Your task to perform on an android device: turn on location history Image 0: 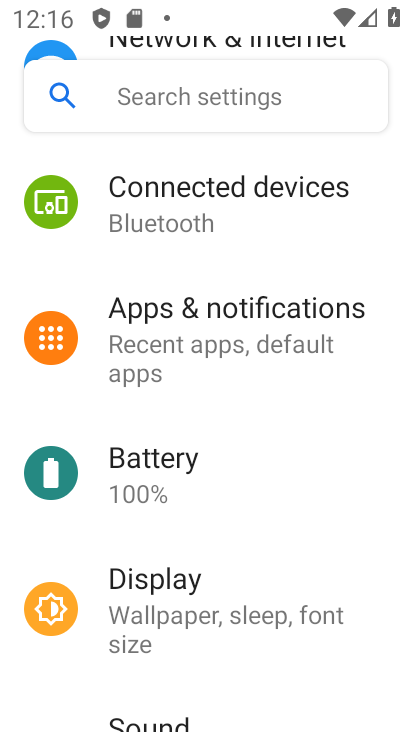
Step 0: drag from (357, 557) to (339, 380)
Your task to perform on an android device: turn on location history Image 1: 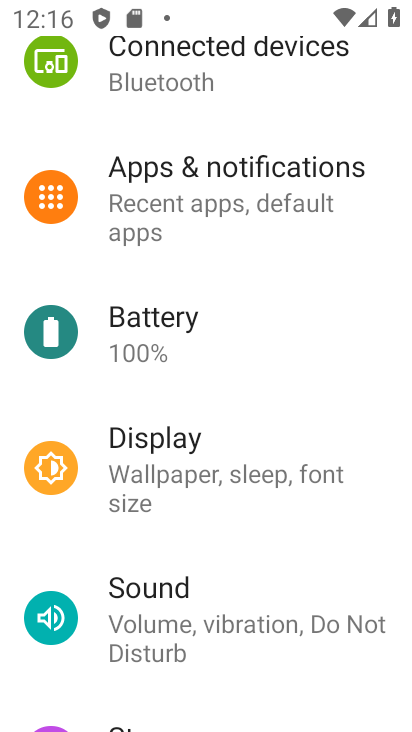
Step 1: drag from (321, 626) to (321, 484)
Your task to perform on an android device: turn on location history Image 2: 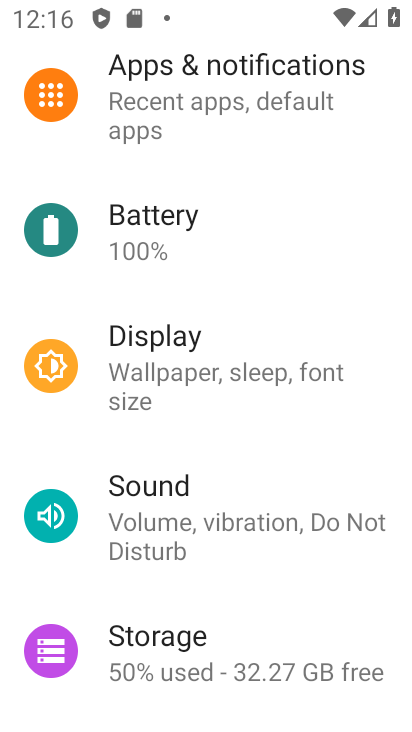
Step 2: drag from (291, 633) to (293, 427)
Your task to perform on an android device: turn on location history Image 3: 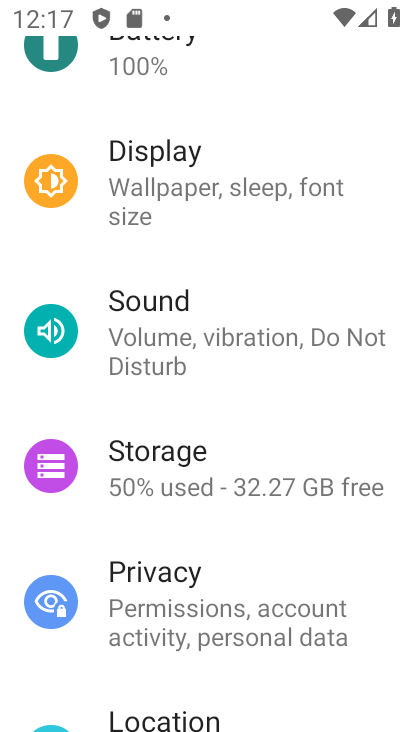
Step 3: drag from (318, 690) to (304, 455)
Your task to perform on an android device: turn on location history Image 4: 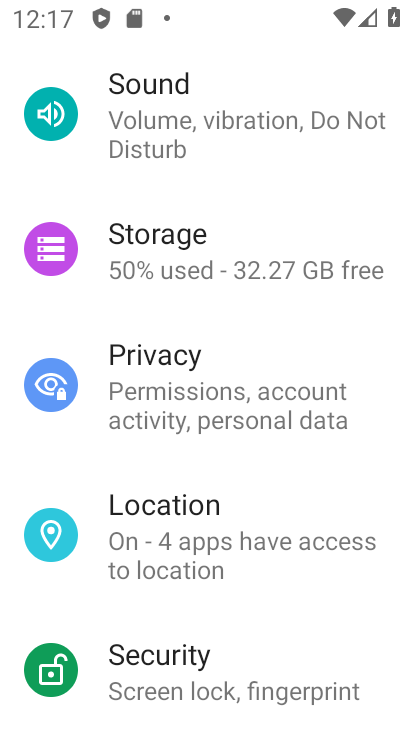
Step 4: drag from (292, 661) to (283, 547)
Your task to perform on an android device: turn on location history Image 5: 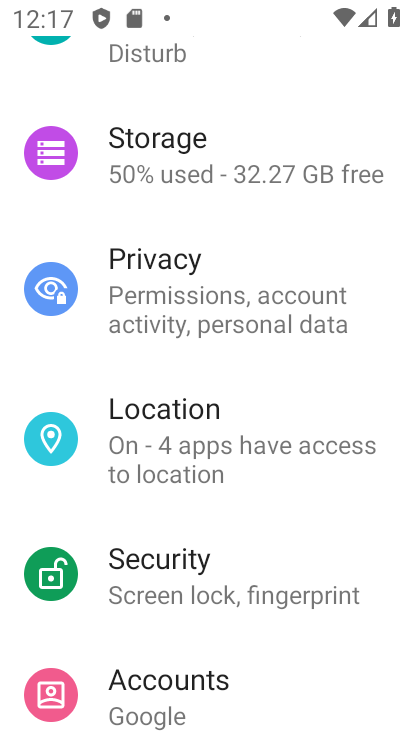
Step 5: click (216, 453)
Your task to perform on an android device: turn on location history Image 6: 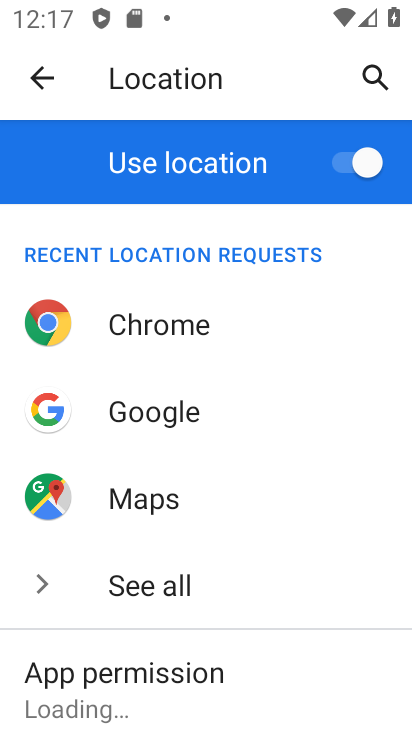
Step 6: drag from (299, 689) to (298, 500)
Your task to perform on an android device: turn on location history Image 7: 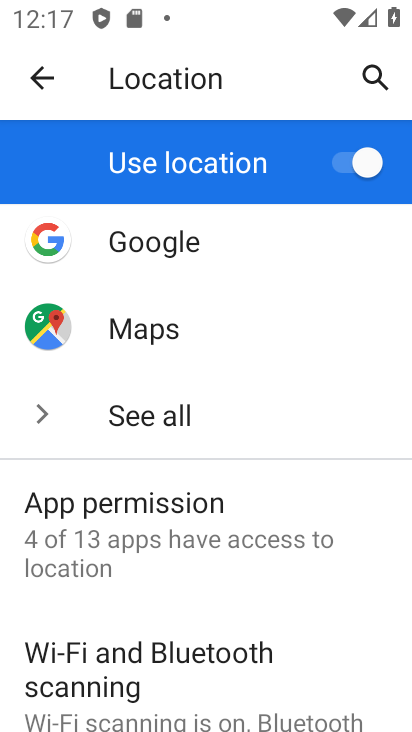
Step 7: drag from (325, 673) to (325, 505)
Your task to perform on an android device: turn on location history Image 8: 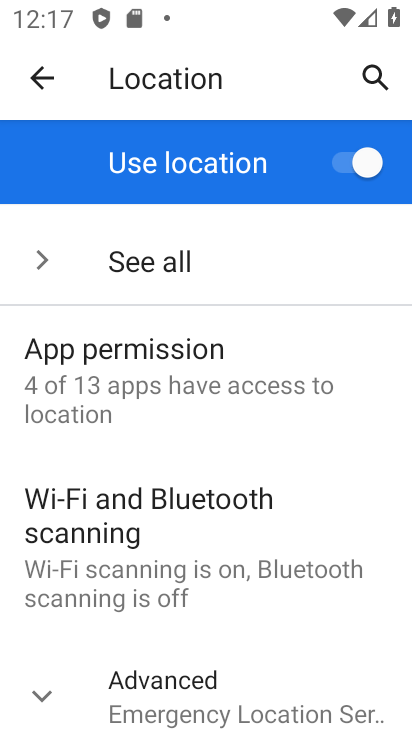
Step 8: drag from (325, 645) to (322, 455)
Your task to perform on an android device: turn on location history Image 9: 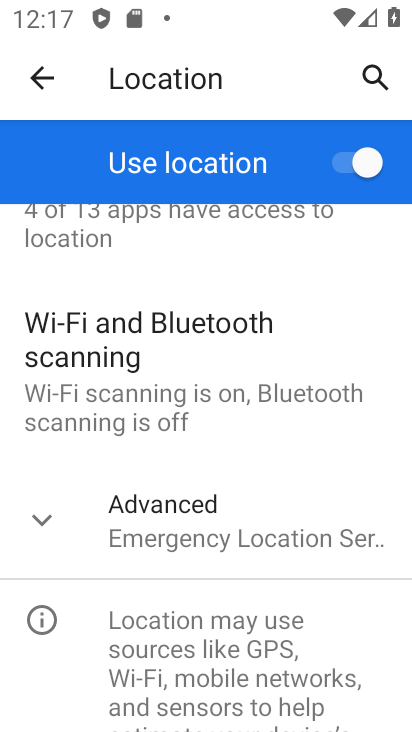
Step 9: click (272, 533)
Your task to perform on an android device: turn on location history Image 10: 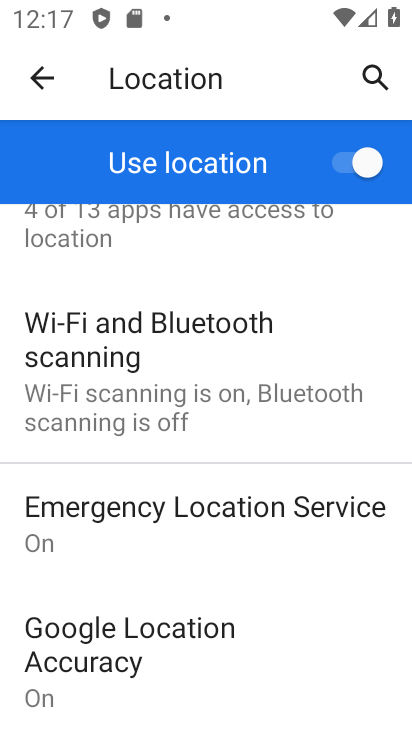
Step 10: drag from (272, 689) to (272, 547)
Your task to perform on an android device: turn on location history Image 11: 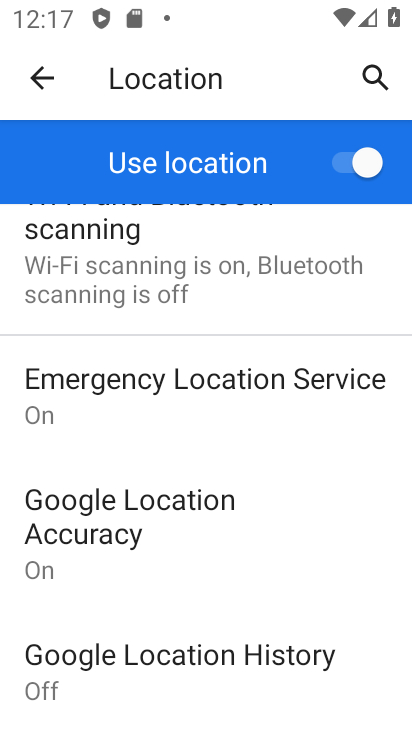
Step 11: drag from (291, 698) to (281, 502)
Your task to perform on an android device: turn on location history Image 12: 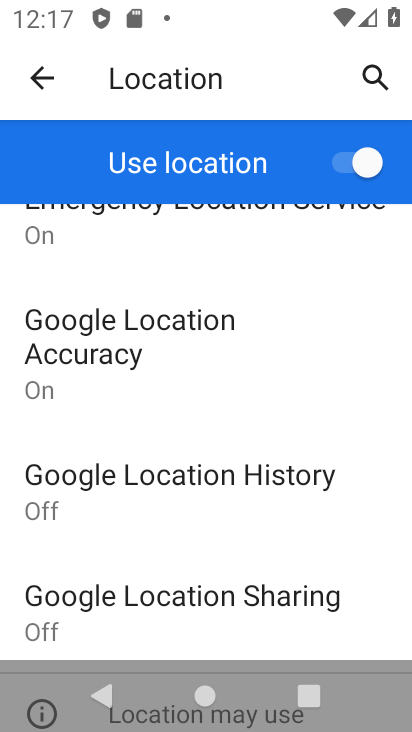
Step 12: click (198, 481)
Your task to perform on an android device: turn on location history Image 13: 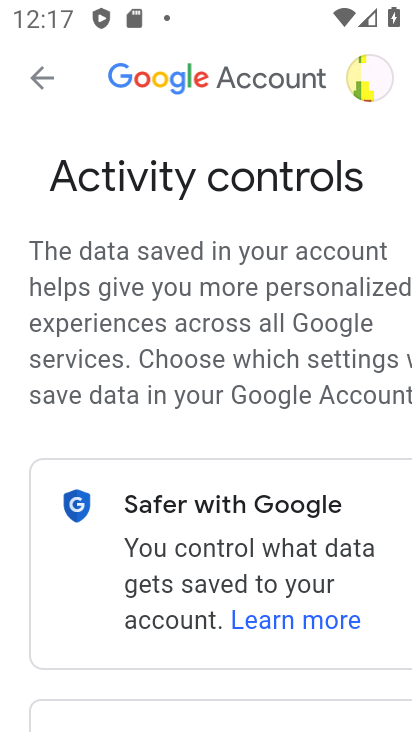
Step 13: drag from (254, 591) to (255, 408)
Your task to perform on an android device: turn on location history Image 14: 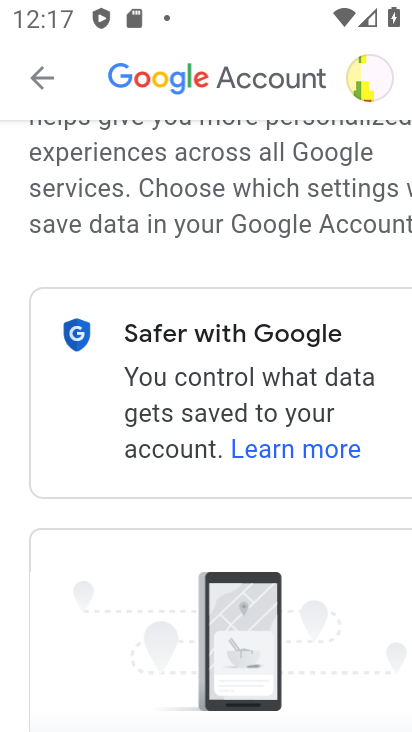
Step 14: drag from (258, 646) to (260, 487)
Your task to perform on an android device: turn on location history Image 15: 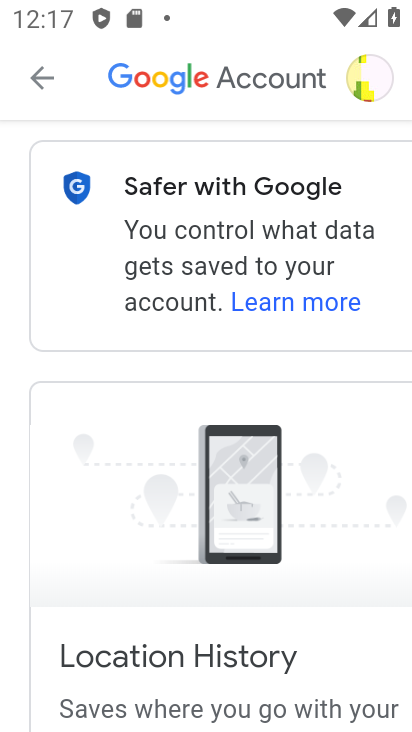
Step 15: drag from (249, 668) to (245, 501)
Your task to perform on an android device: turn on location history Image 16: 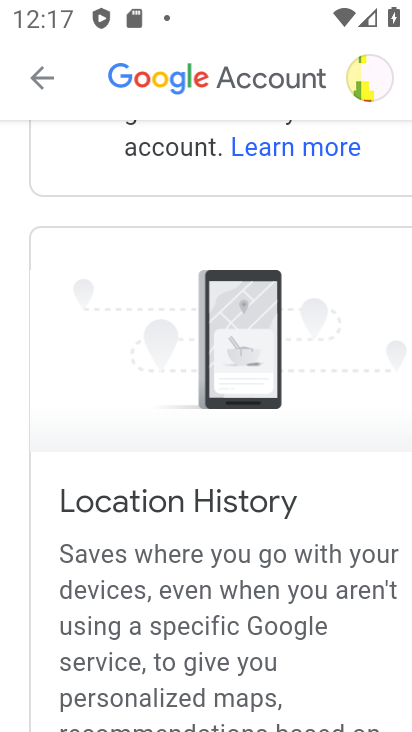
Step 16: drag from (232, 672) to (216, 470)
Your task to perform on an android device: turn on location history Image 17: 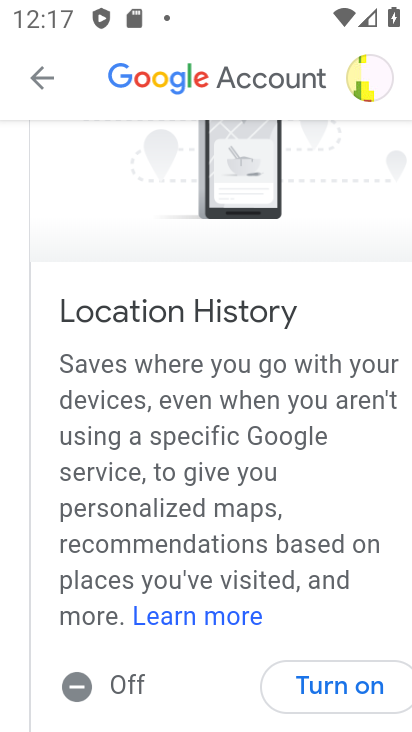
Step 17: click (345, 684)
Your task to perform on an android device: turn on location history Image 18: 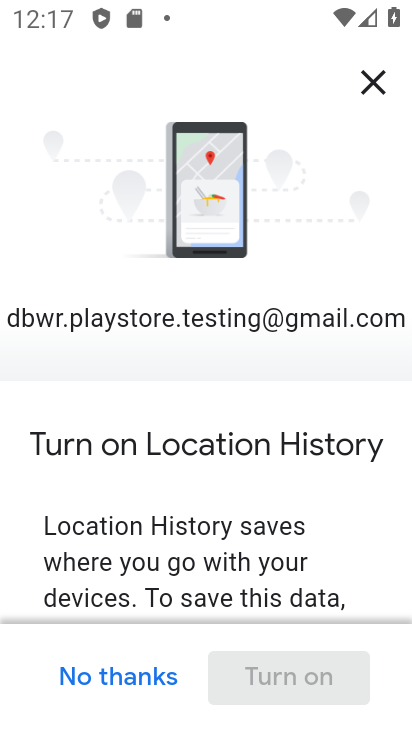
Step 18: drag from (194, 548) to (190, 377)
Your task to perform on an android device: turn on location history Image 19: 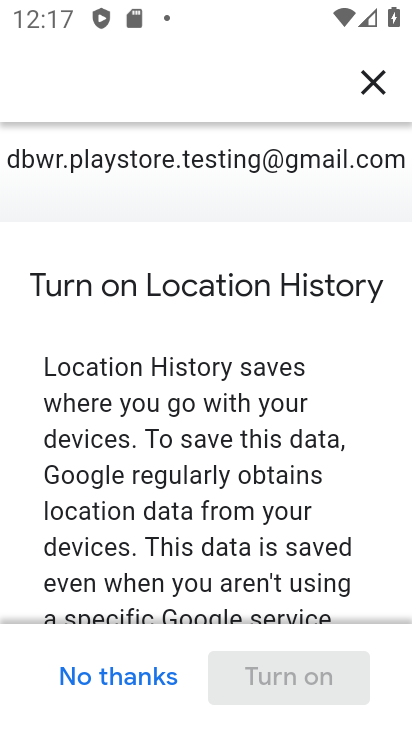
Step 19: drag from (236, 557) to (237, 419)
Your task to perform on an android device: turn on location history Image 20: 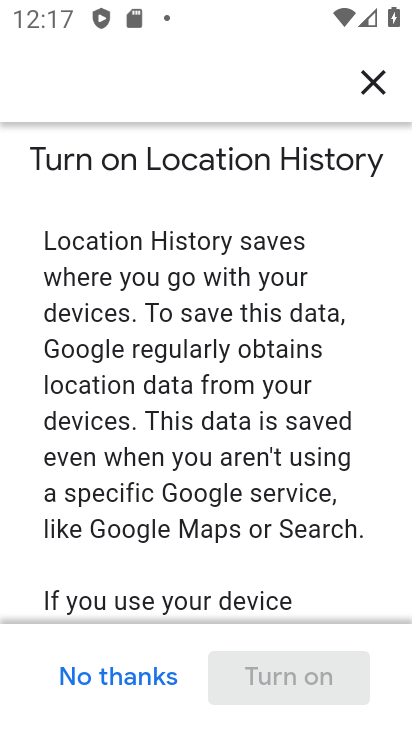
Step 20: drag from (253, 557) to (253, 397)
Your task to perform on an android device: turn on location history Image 21: 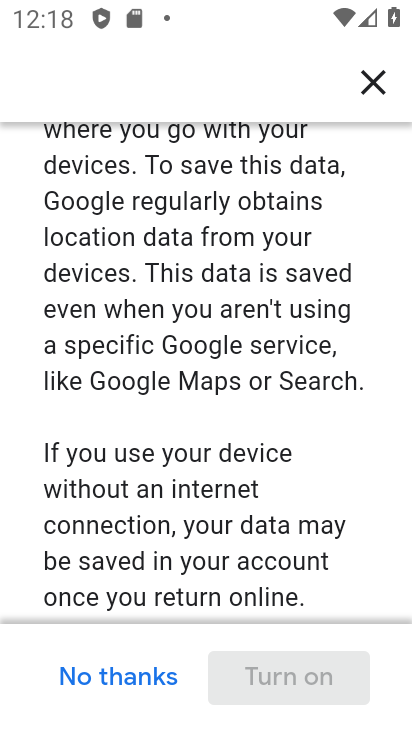
Step 21: drag from (276, 581) to (276, 414)
Your task to perform on an android device: turn on location history Image 22: 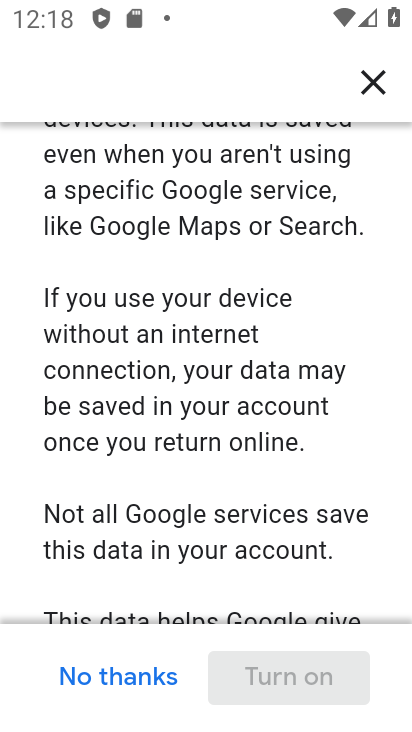
Step 22: drag from (259, 583) to (259, 420)
Your task to perform on an android device: turn on location history Image 23: 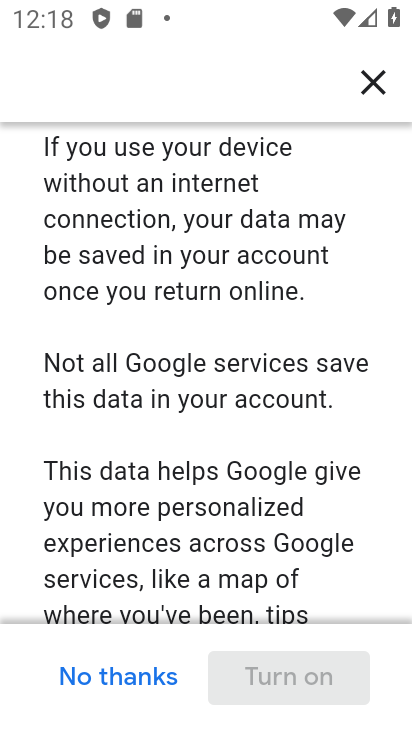
Step 23: drag from (273, 586) to (271, 411)
Your task to perform on an android device: turn on location history Image 24: 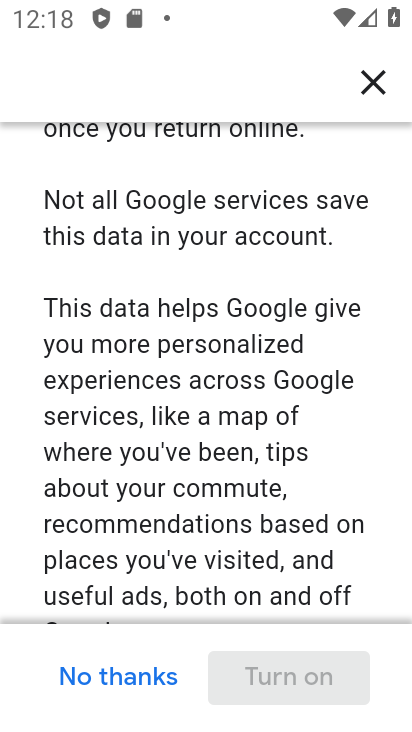
Step 24: drag from (262, 580) to (263, 423)
Your task to perform on an android device: turn on location history Image 25: 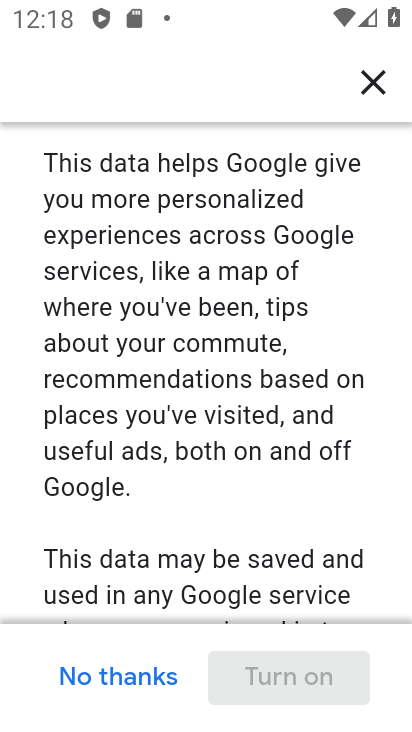
Step 25: drag from (230, 579) to (230, 397)
Your task to perform on an android device: turn on location history Image 26: 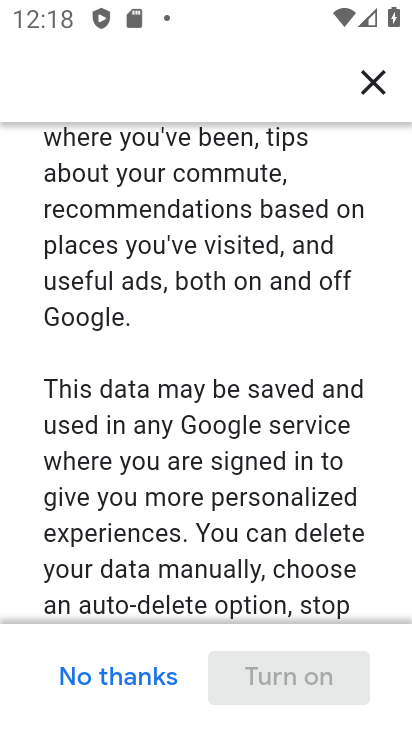
Step 26: drag from (217, 571) to (217, 413)
Your task to perform on an android device: turn on location history Image 27: 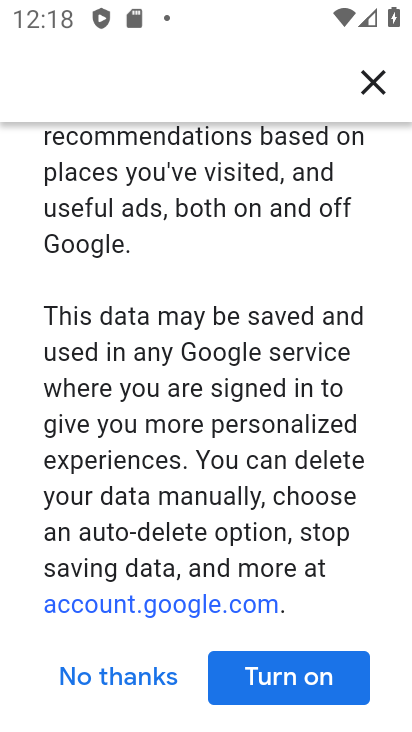
Step 27: click (312, 676)
Your task to perform on an android device: turn on location history Image 28: 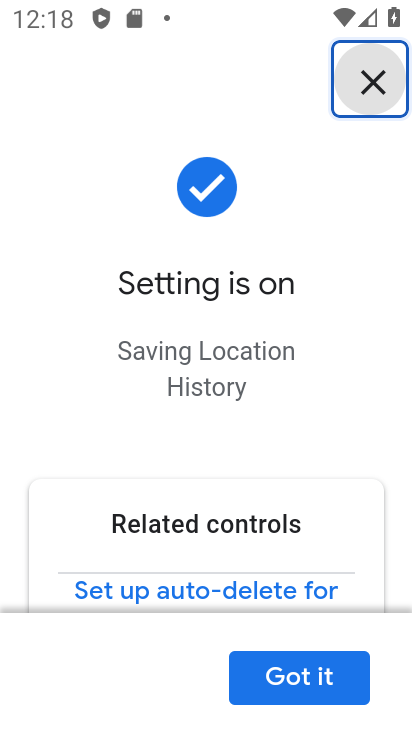
Step 28: task complete